Your task to perform on an android device: toggle priority inbox in the gmail app Image 0: 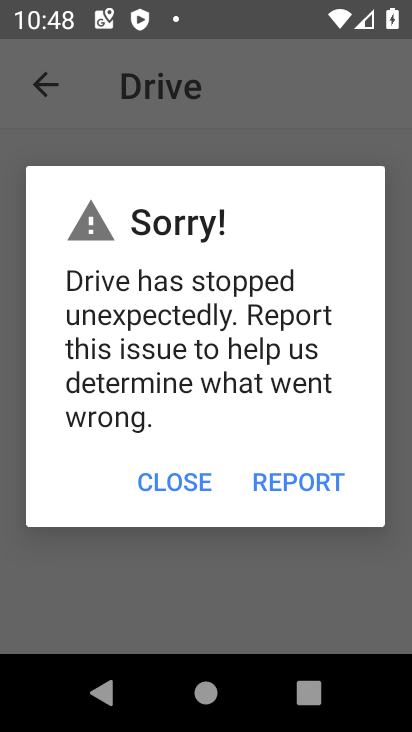
Step 0: press home button
Your task to perform on an android device: toggle priority inbox in the gmail app Image 1: 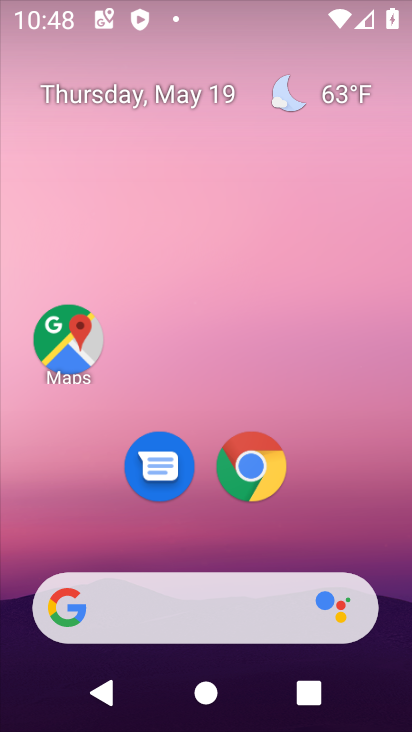
Step 1: drag from (390, 635) to (296, 64)
Your task to perform on an android device: toggle priority inbox in the gmail app Image 2: 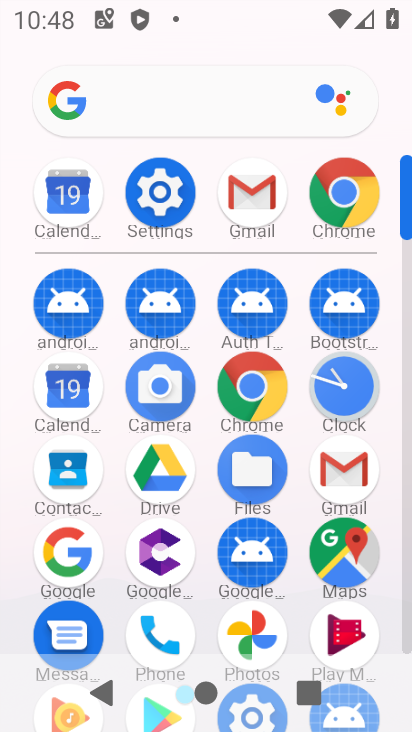
Step 2: click (267, 174)
Your task to perform on an android device: toggle priority inbox in the gmail app Image 3: 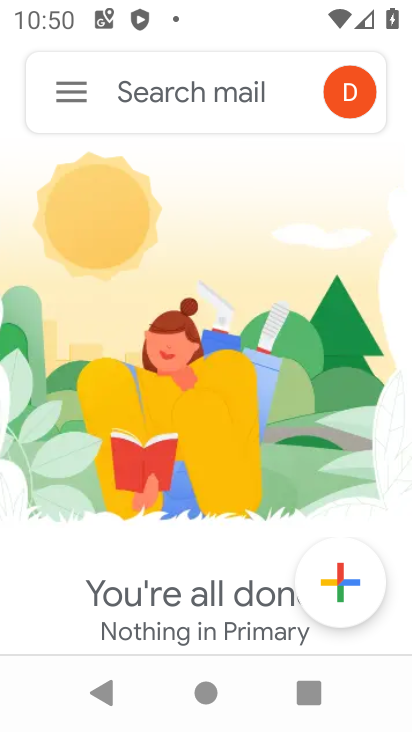
Step 3: click (79, 109)
Your task to perform on an android device: toggle priority inbox in the gmail app Image 4: 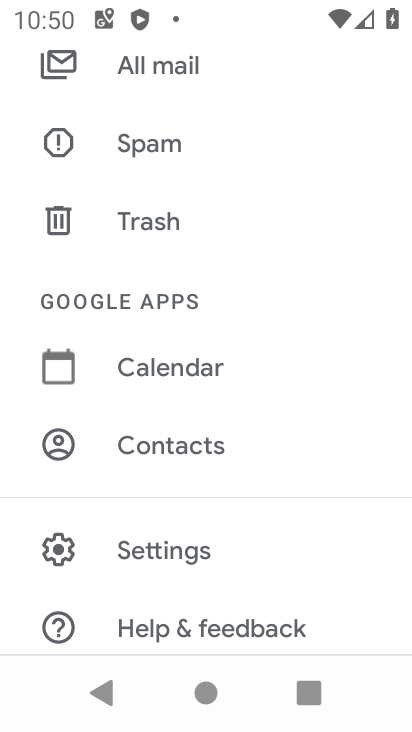
Step 4: click (171, 539)
Your task to perform on an android device: toggle priority inbox in the gmail app Image 5: 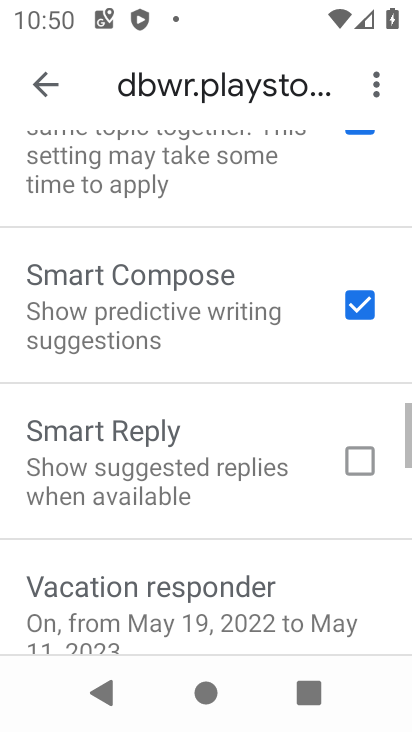
Step 5: drag from (155, 233) to (210, 629)
Your task to perform on an android device: toggle priority inbox in the gmail app Image 6: 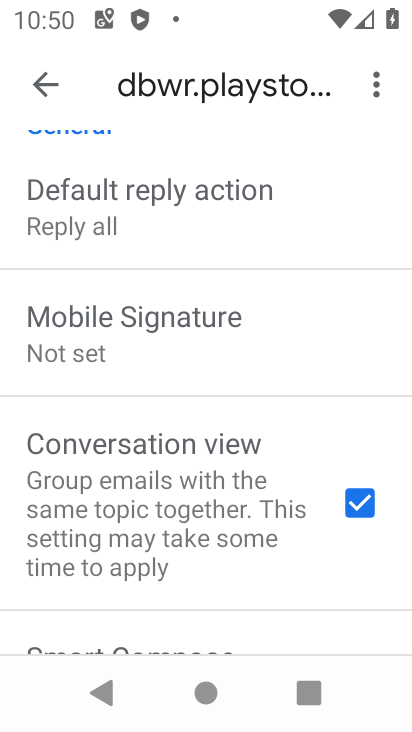
Step 6: drag from (154, 240) to (195, 659)
Your task to perform on an android device: toggle priority inbox in the gmail app Image 7: 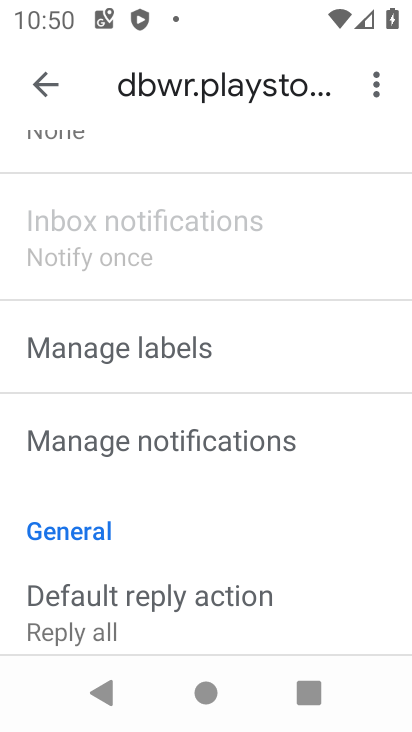
Step 7: drag from (179, 277) to (195, 649)
Your task to perform on an android device: toggle priority inbox in the gmail app Image 8: 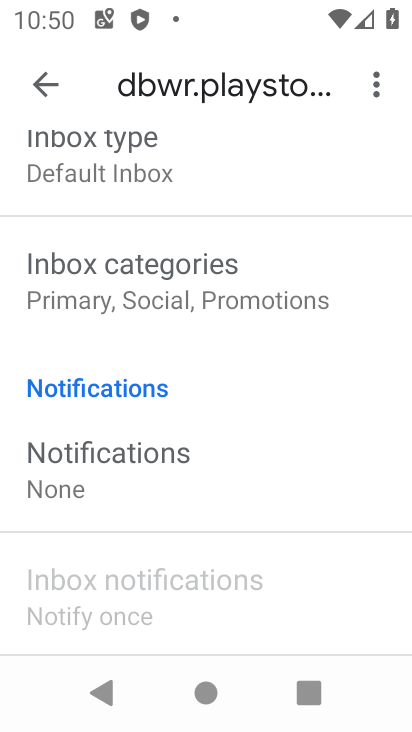
Step 8: click (195, 166)
Your task to perform on an android device: toggle priority inbox in the gmail app Image 9: 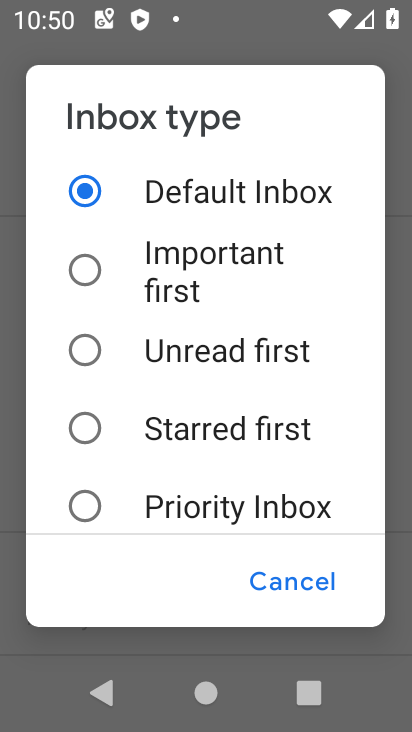
Step 9: task complete